Your task to perform on an android device: Open my contact list Image 0: 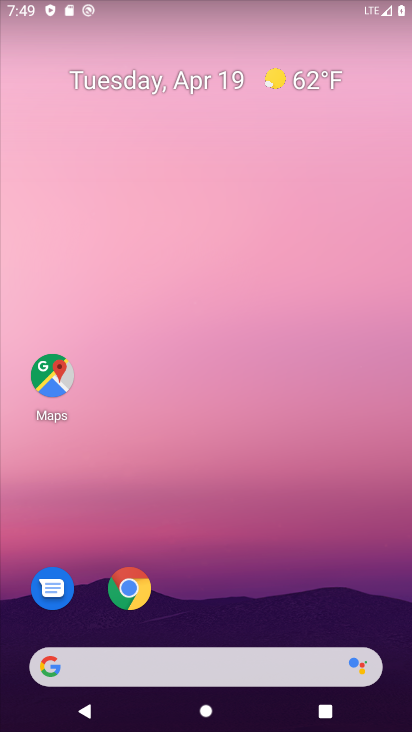
Step 0: drag from (220, 590) to (176, 164)
Your task to perform on an android device: Open my contact list Image 1: 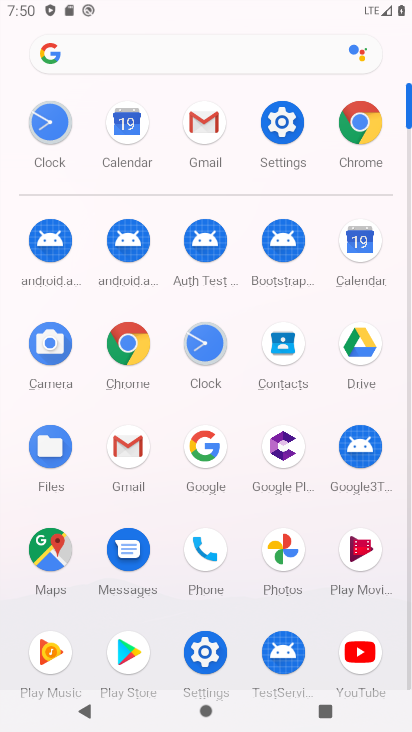
Step 1: click (281, 338)
Your task to perform on an android device: Open my contact list Image 2: 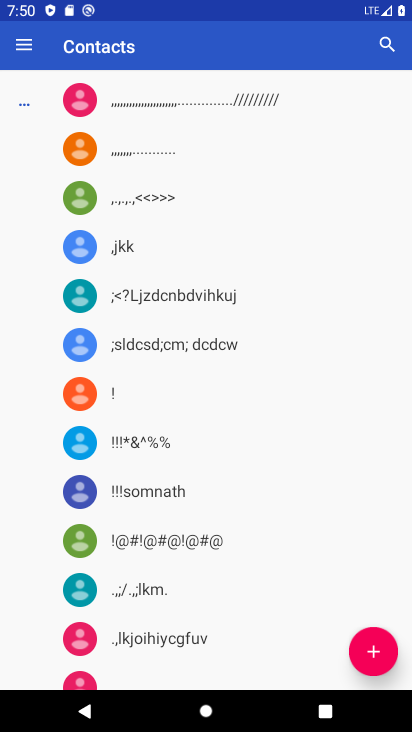
Step 2: task complete